Your task to perform on an android device: Is it going to rain tomorrow? Image 0: 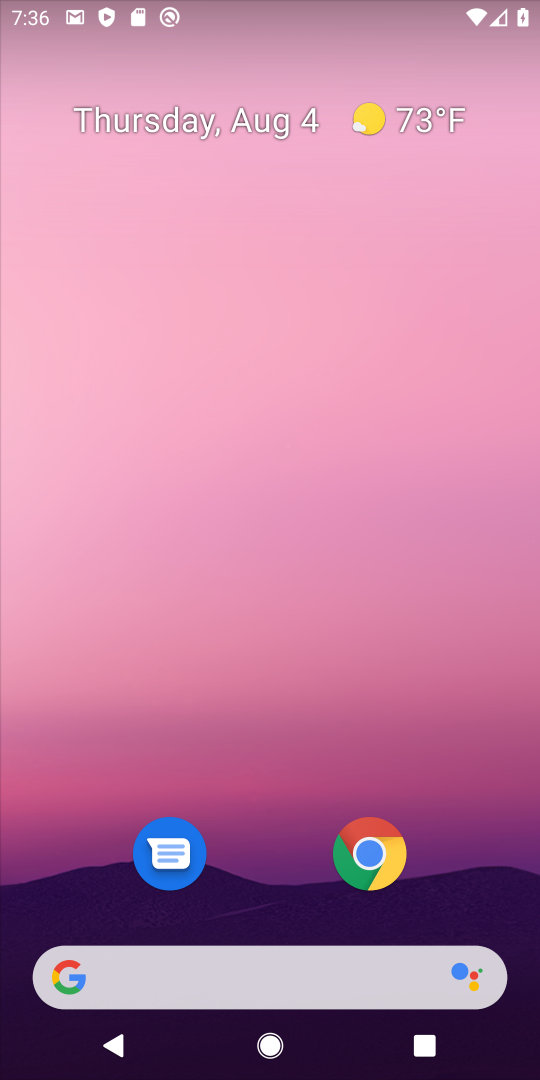
Step 0: drag from (306, 896) to (246, 300)
Your task to perform on an android device: Is it going to rain tomorrow? Image 1: 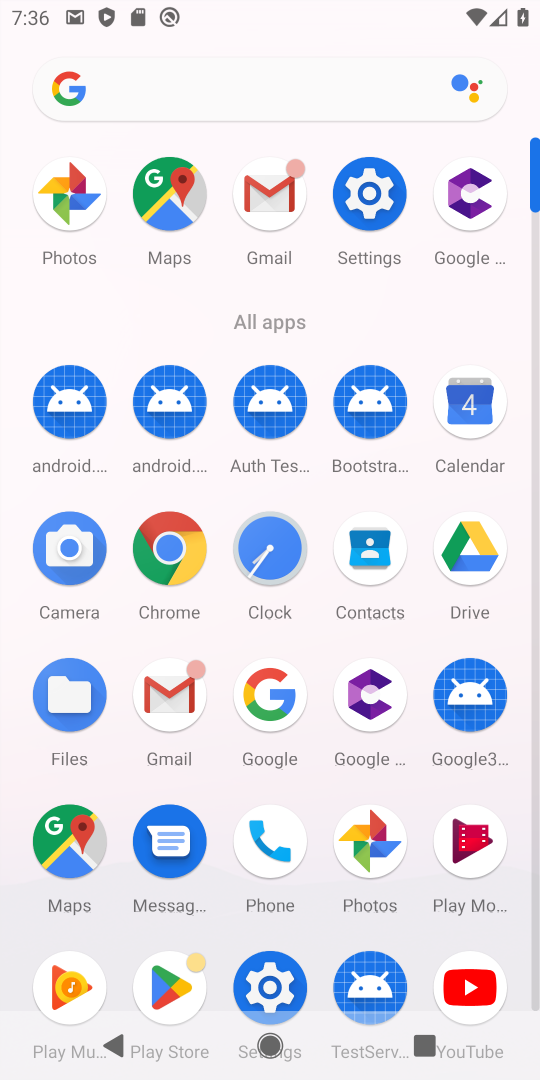
Step 1: click (259, 697)
Your task to perform on an android device: Is it going to rain tomorrow? Image 2: 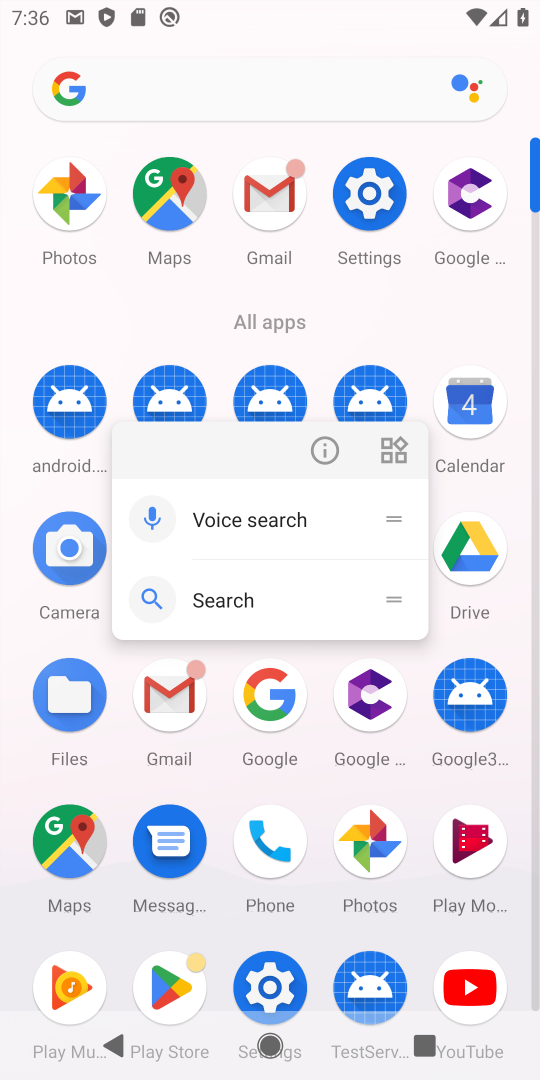
Step 2: click (258, 713)
Your task to perform on an android device: Is it going to rain tomorrow? Image 3: 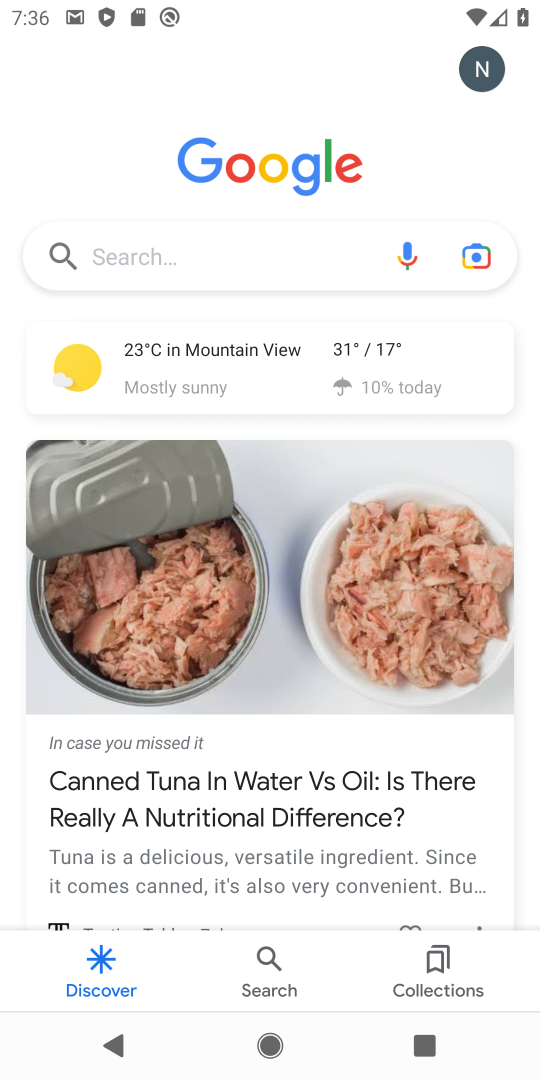
Step 3: click (324, 274)
Your task to perform on an android device: Is it going to rain tomorrow? Image 4: 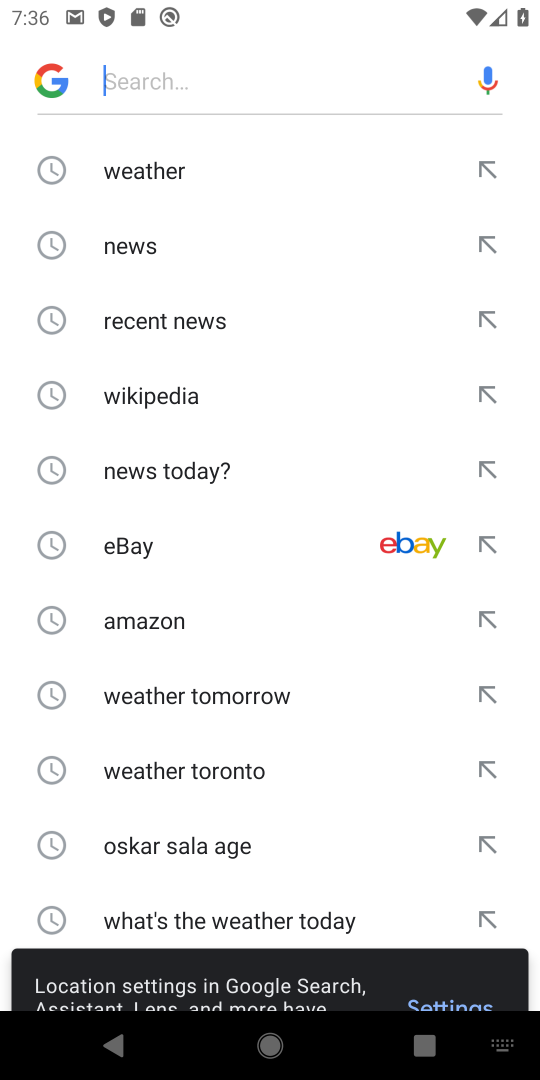
Step 4: drag from (222, 875) to (263, 227)
Your task to perform on an android device: Is it going to rain tomorrow? Image 5: 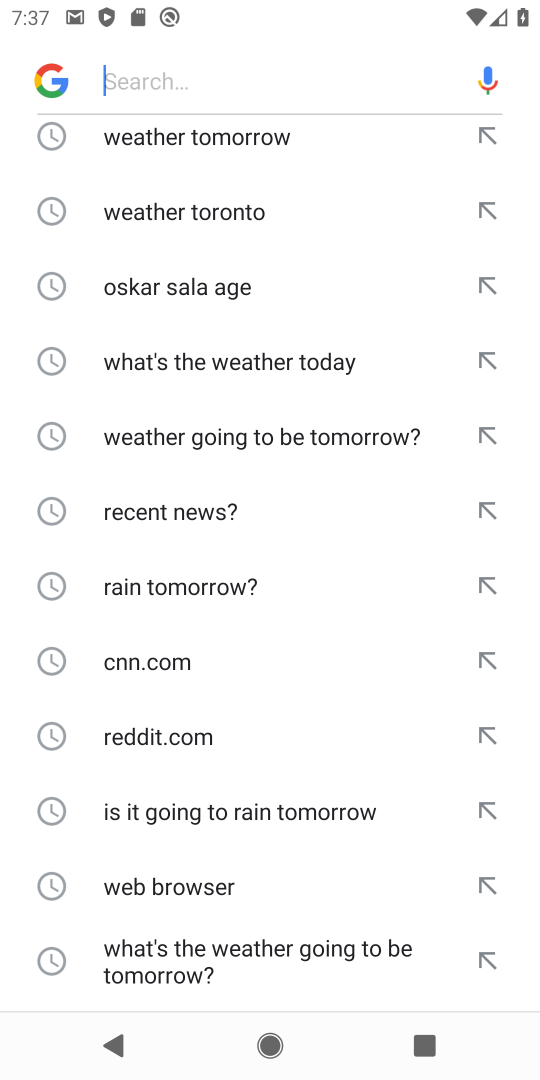
Step 5: click (242, 814)
Your task to perform on an android device: Is it going to rain tomorrow? Image 6: 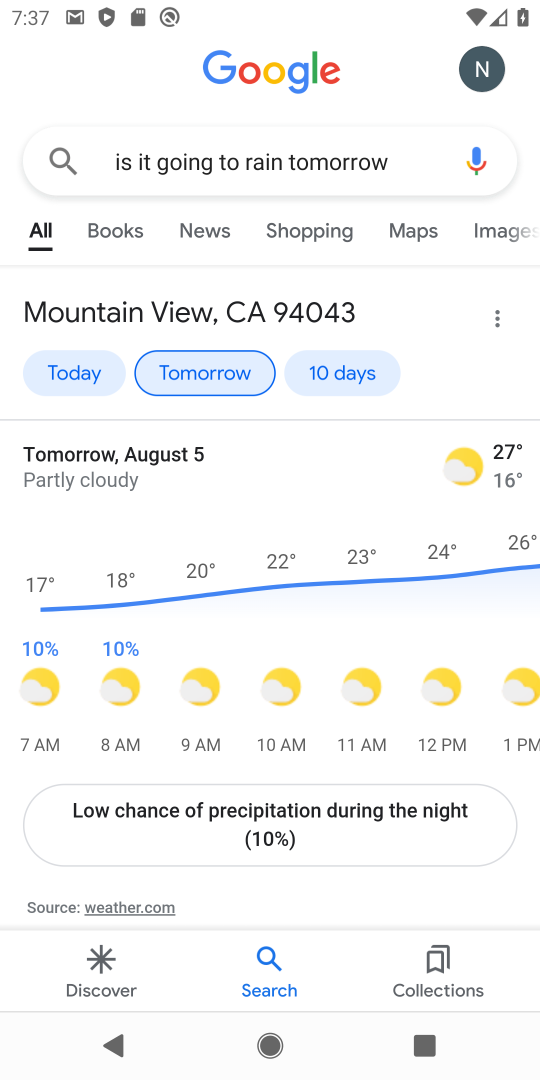
Step 6: task complete